Your task to perform on an android device: manage bookmarks in the chrome app Image 0: 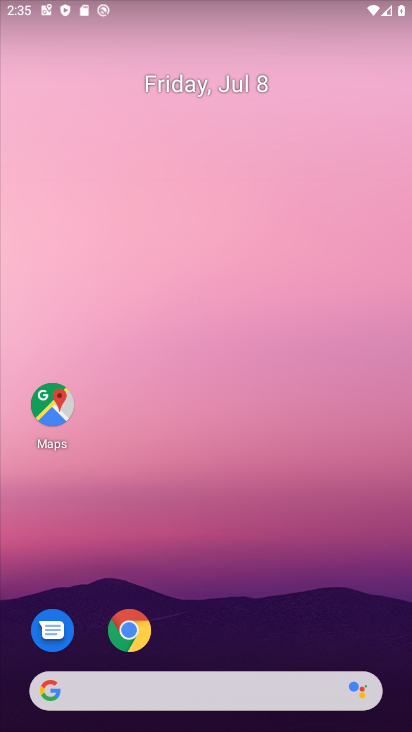
Step 0: click (244, 606)
Your task to perform on an android device: manage bookmarks in the chrome app Image 1: 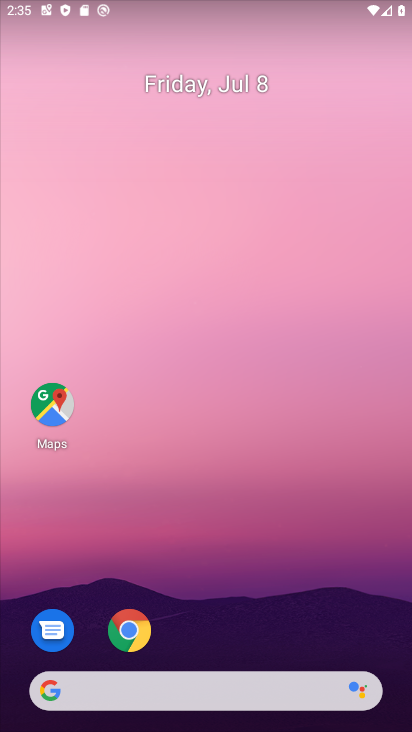
Step 1: click (118, 622)
Your task to perform on an android device: manage bookmarks in the chrome app Image 2: 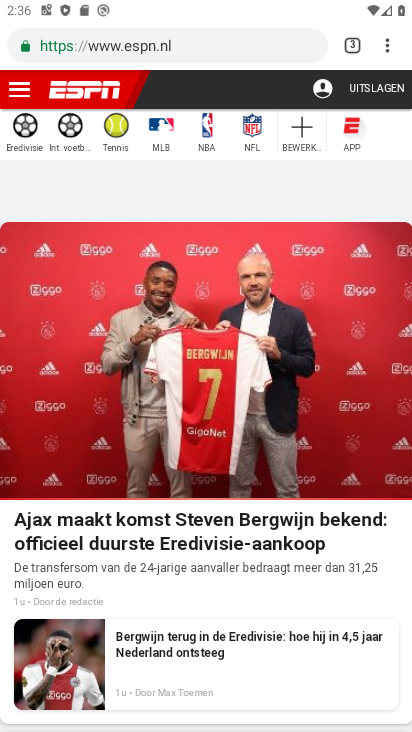
Step 2: click (382, 45)
Your task to perform on an android device: manage bookmarks in the chrome app Image 3: 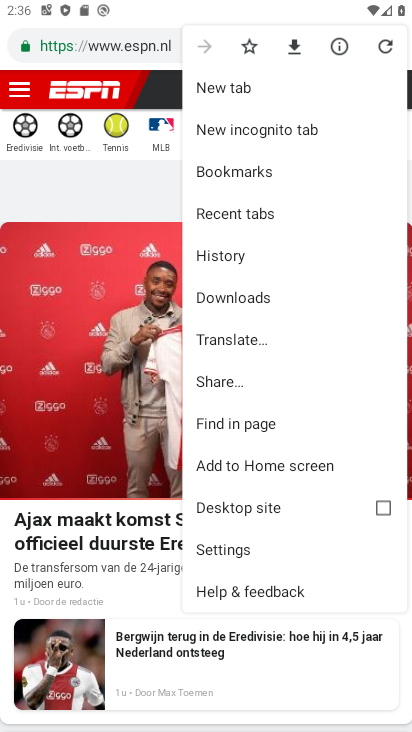
Step 3: click (267, 178)
Your task to perform on an android device: manage bookmarks in the chrome app Image 4: 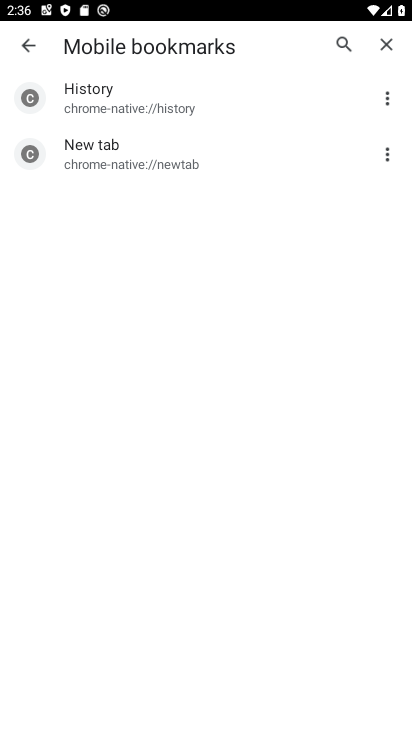
Step 4: click (396, 96)
Your task to perform on an android device: manage bookmarks in the chrome app Image 5: 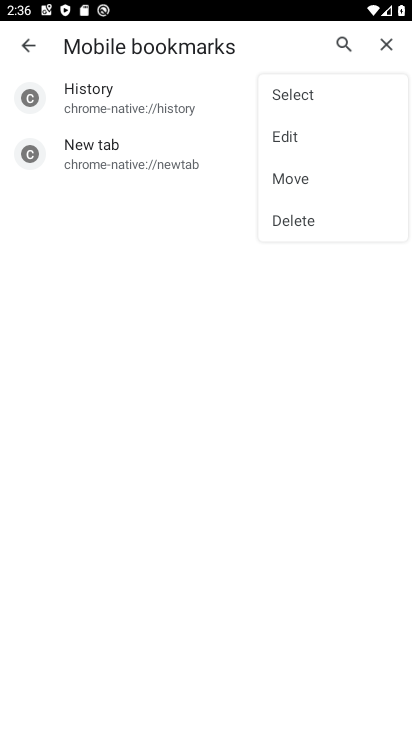
Step 5: click (311, 213)
Your task to perform on an android device: manage bookmarks in the chrome app Image 6: 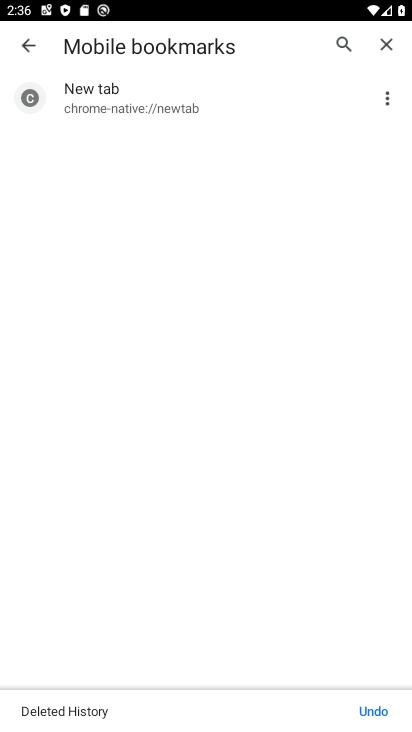
Step 6: task complete